Your task to perform on an android device: uninstall "Google Home" Image 0: 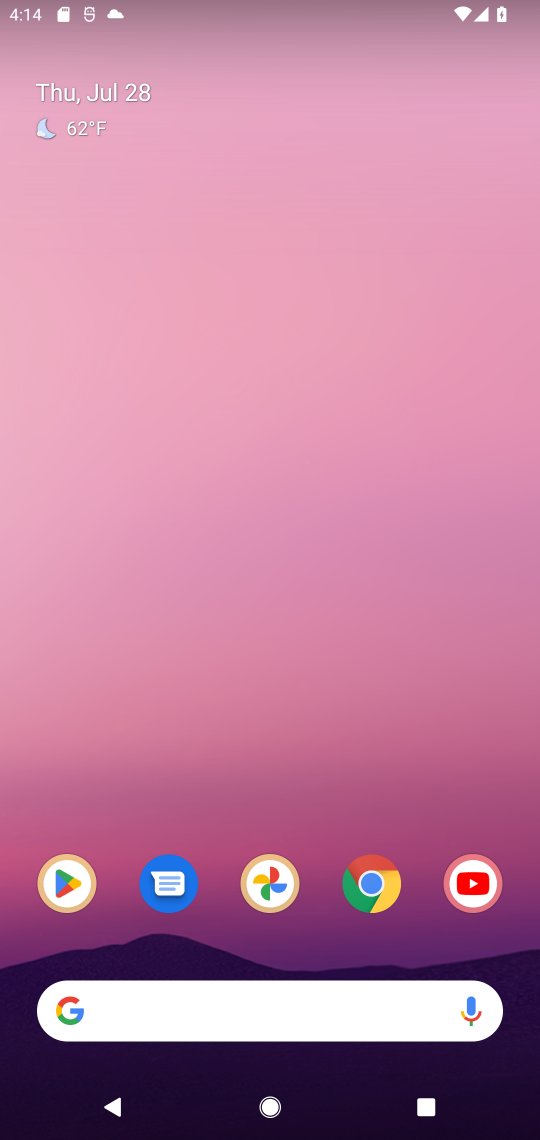
Step 0: drag from (285, 989) to (225, 58)
Your task to perform on an android device: uninstall "Google Home" Image 1: 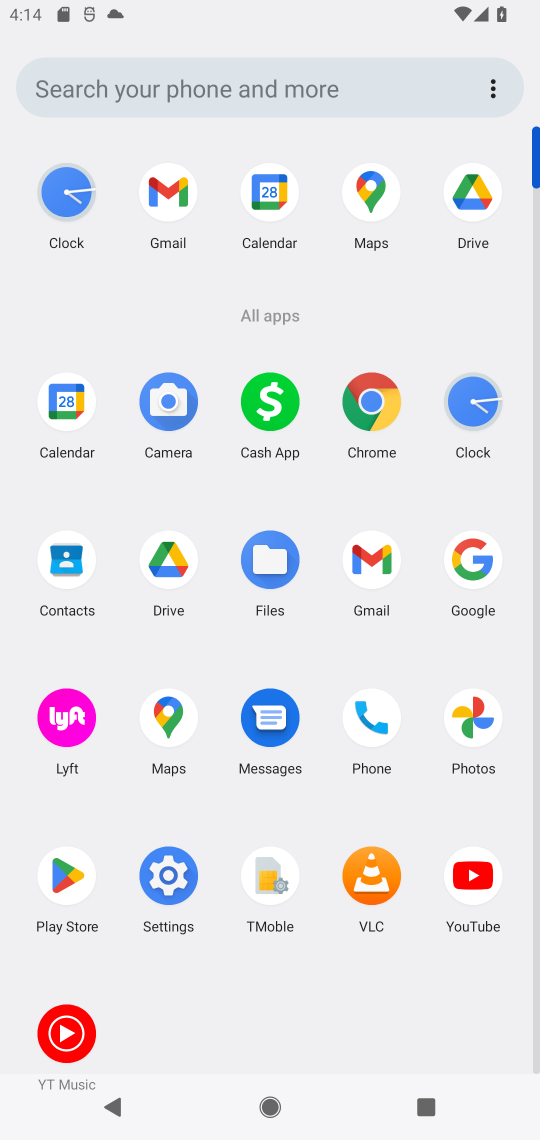
Step 1: click (54, 902)
Your task to perform on an android device: uninstall "Google Home" Image 2: 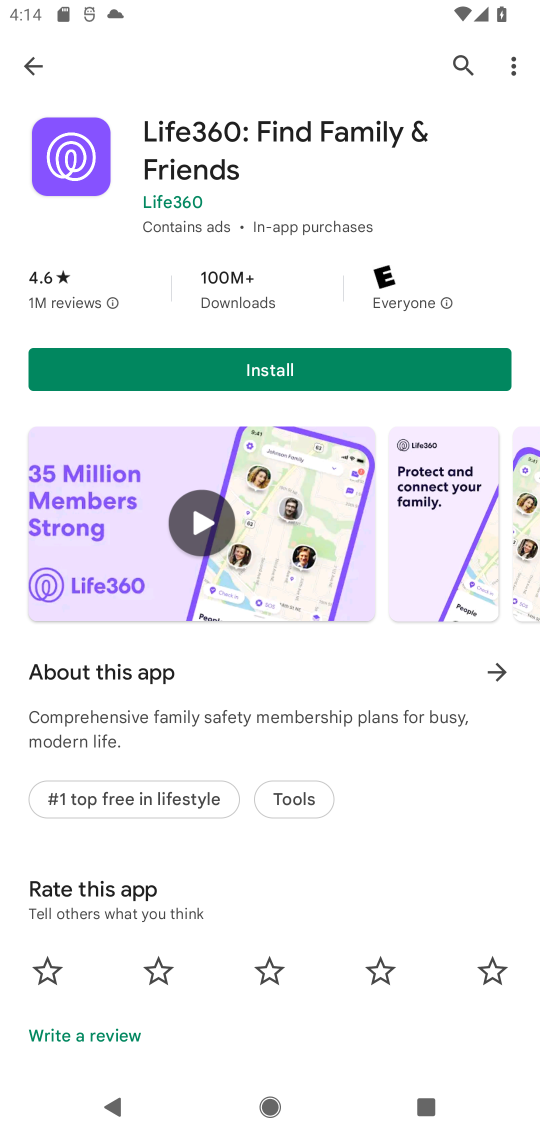
Step 2: click (39, 56)
Your task to perform on an android device: uninstall "Google Home" Image 3: 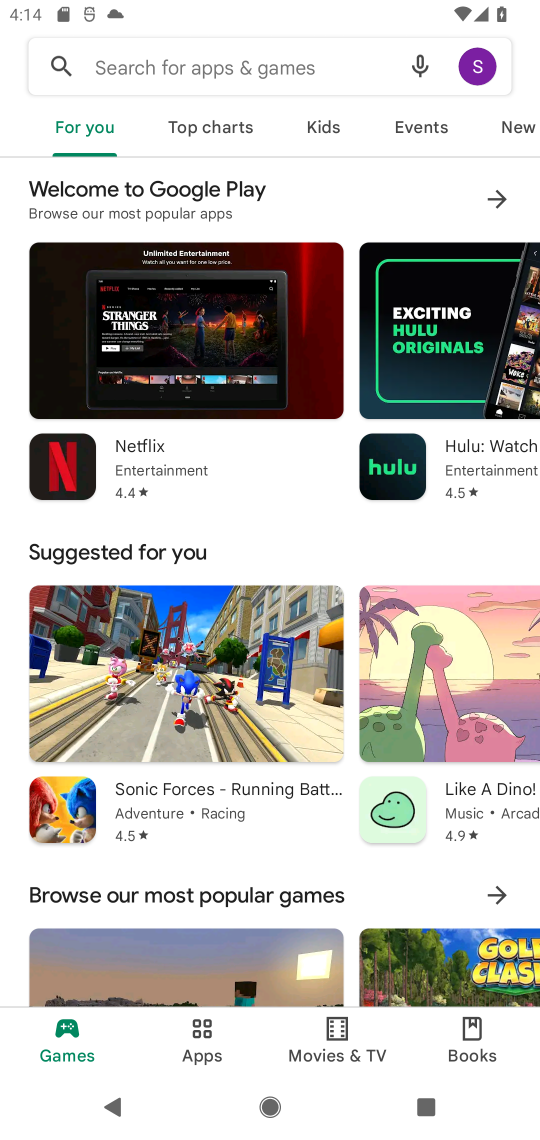
Step 3: click (171, 67)
Your task to perform on an android device: uninstall "Google Home" Image 4: 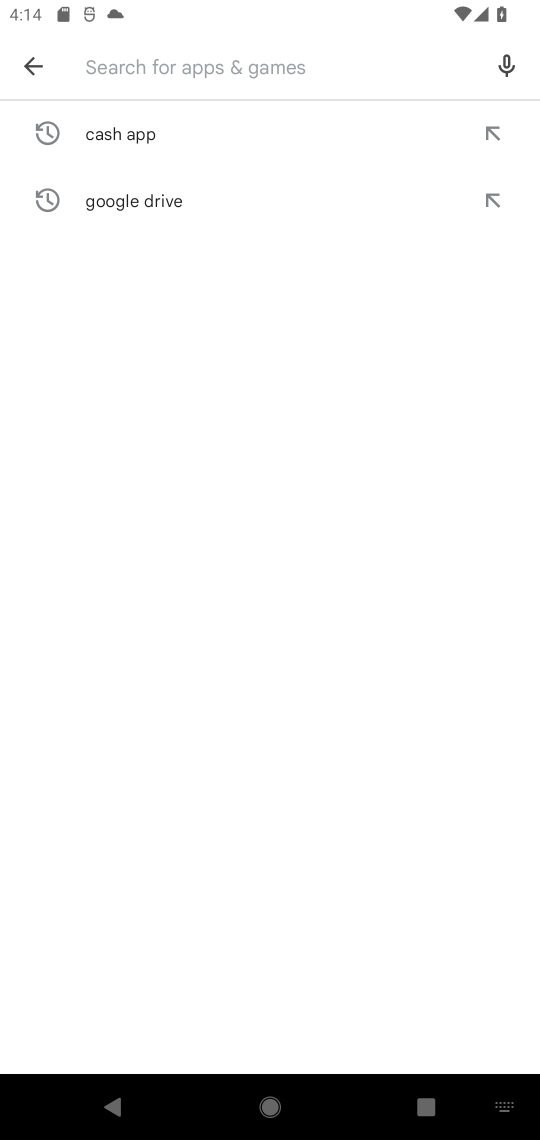
Step 4: type "Google Home"
Your task to perform on an android device: uninstall "Google Home" Image 5: 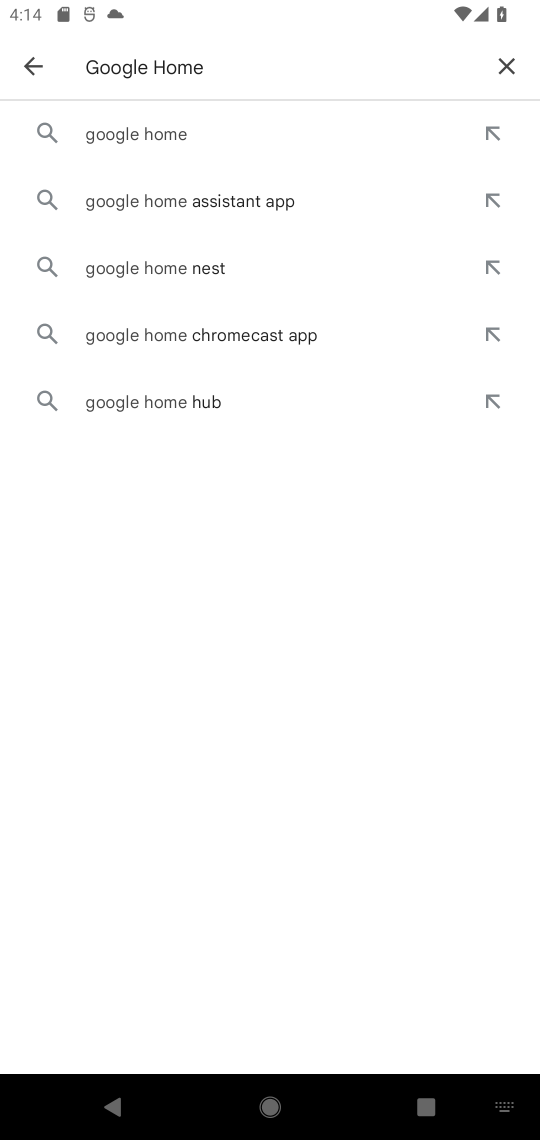
Step 5: click (155, 121)
Your task to perform on an android device: uninstall "Google Home" Image 6: 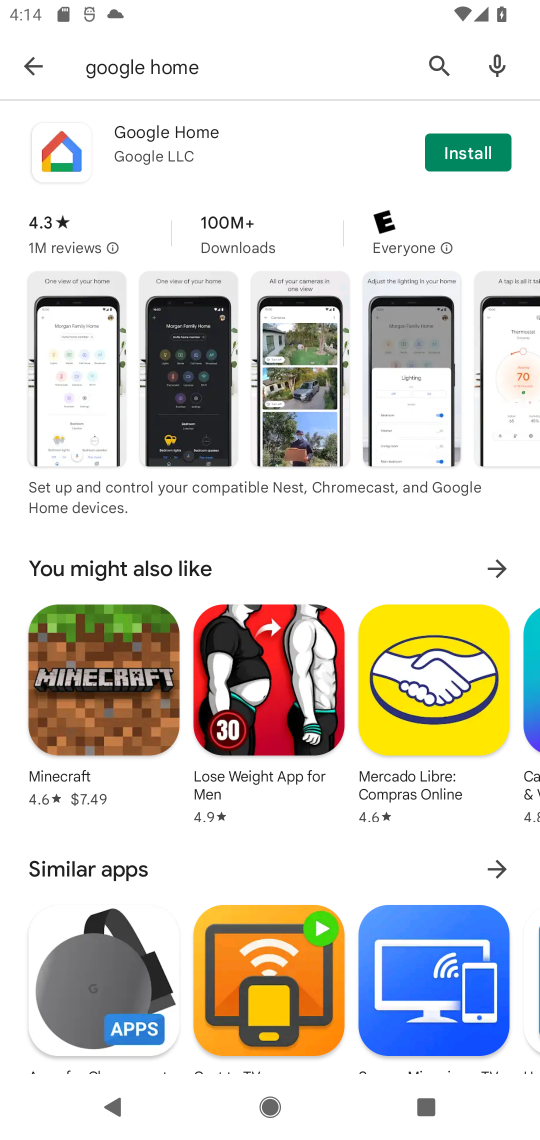
Step 6: task complete